Your task to perform on an android device: change alarm snooze length Image 0: 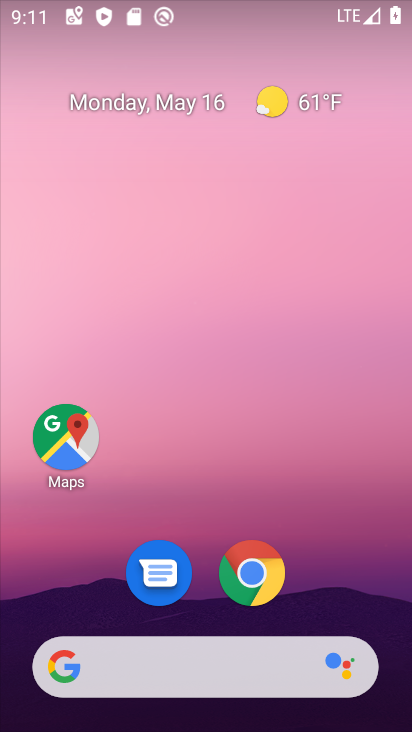
Step 0: drag from (213, 721) to (213, 204)
Your task to perform on an android device: change alarm snooze length Image 1: 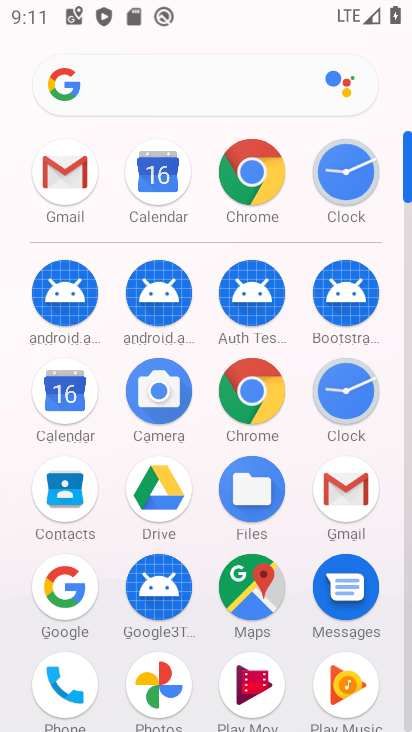
Step 1: drag from (223, 444) to (221, 164)
Your task to perform on an android device: change alarm snooze length Image 2: 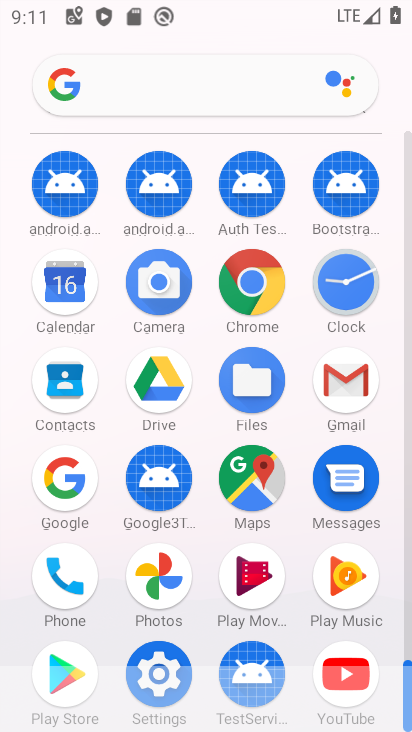
Step 2: click (327, 294)
Your task to perform on an android device: change alarm snooze length Image 3: 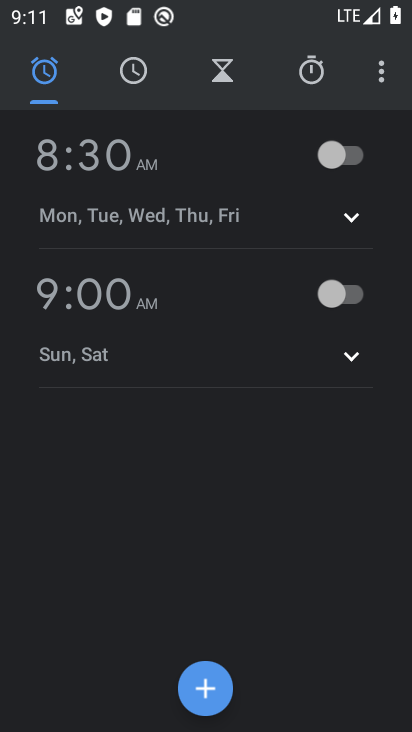
Step 3: click (381, 71)
Your task to perform on an android device: change alarm snooze length Image 4: 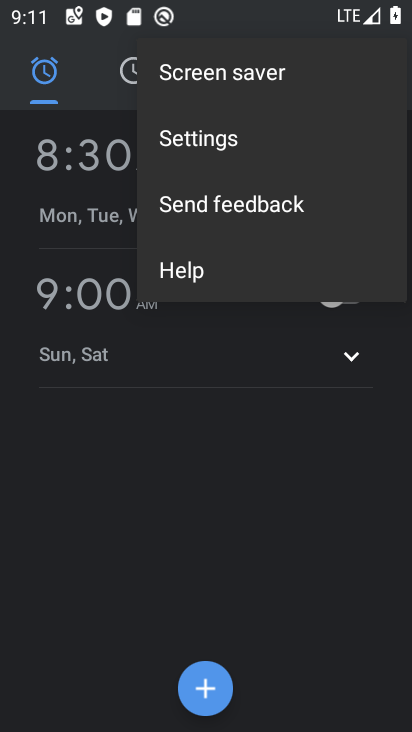
Step 4: click (209, 136)
Your task to perform on an android device: change alarm snooze length Image 5: 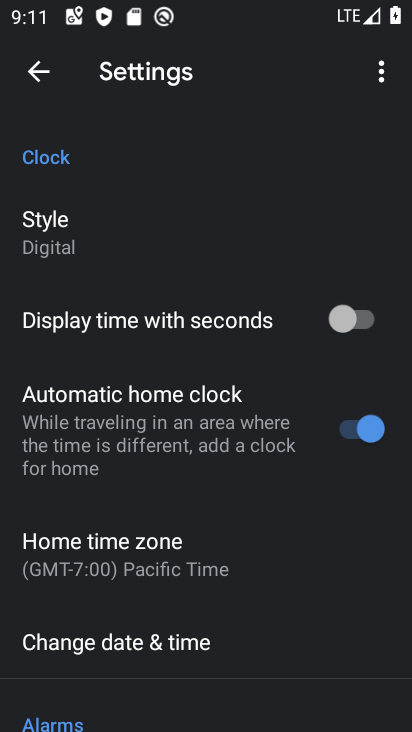
Step 5: drag from (101, 692) to (102, 175)
Your task to perform on an android device: change alarm snooze length Image 6: 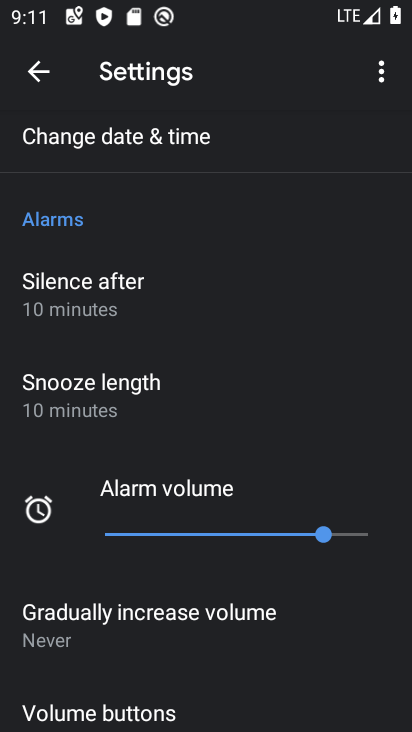
Step 6: click (78, 393)
Your task to perform on an android device: change alarm snooze length Image 7: 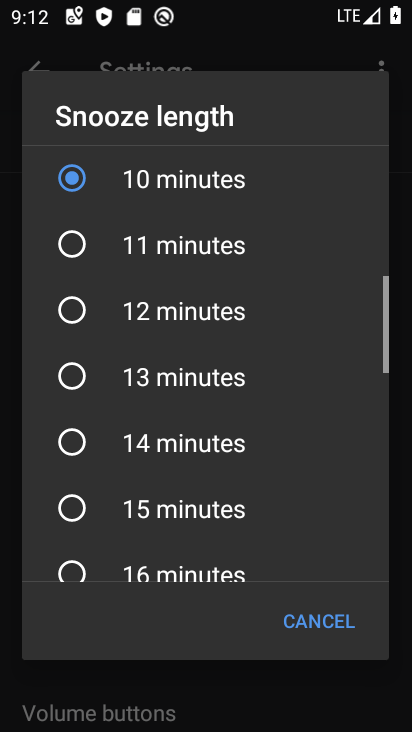
Step 7: click (69, 439)
Your task to perform on an android device: change alarm snooze length Image 8: 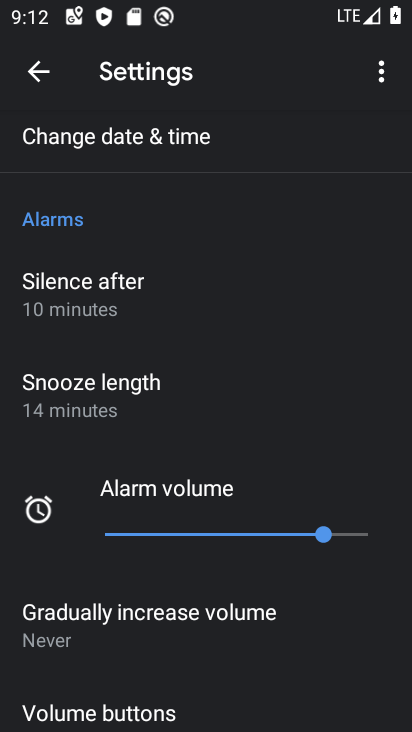
Step 8: task complete